Your task to perform on an android device: Go to Google maps Image 0: 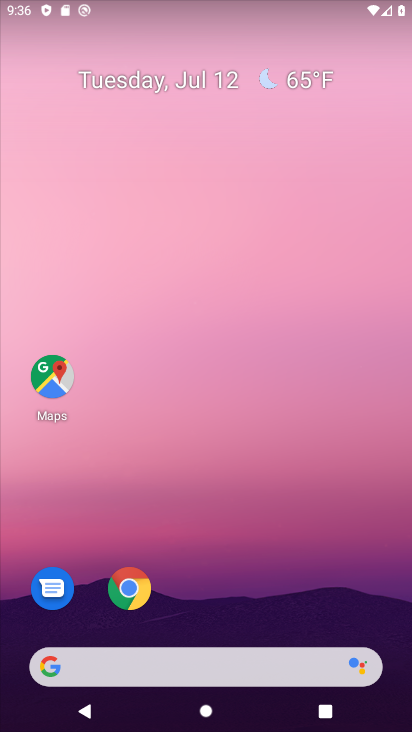
Step 0: click (42, 388)
Your task to perform on an android device: Go to Google maps Image 1: 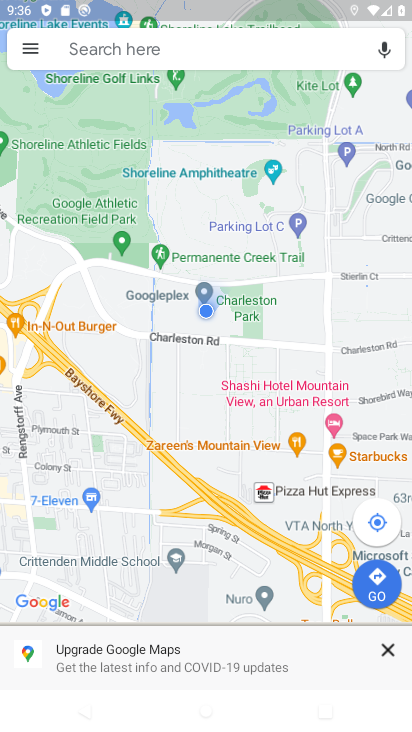
Step 1: task complete